Your task to perform on an android device: Search for sushi restaurants on Maps Image 0: 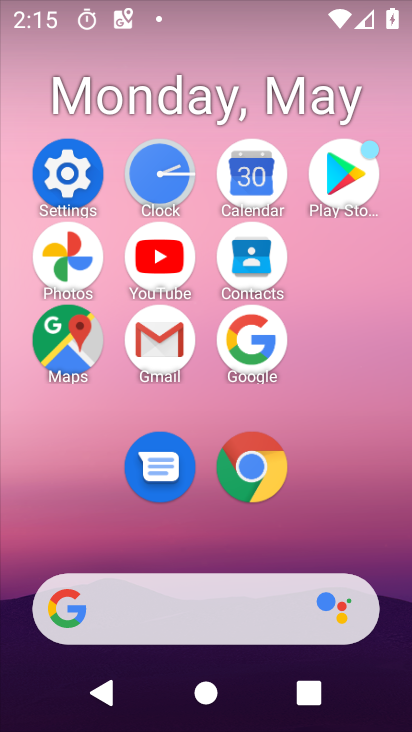
Step 0: click (86, 363)
Your task to perform on an android device: Search for sushi restaurants on Maps Image 1: 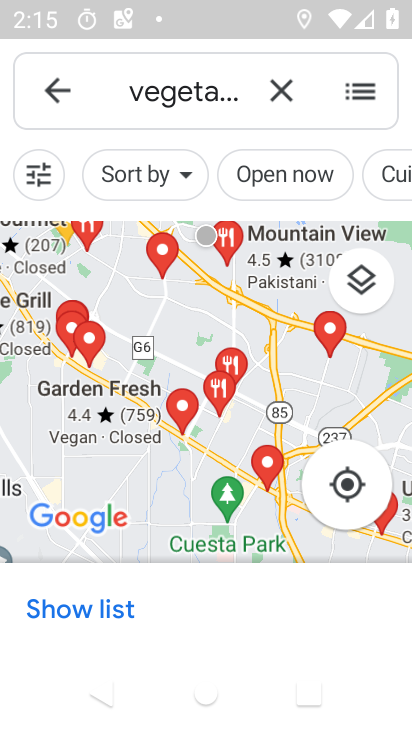
Step 1: click (263, 94)
Your task to perform on an android device: Search for sushi restaurants on Maps Image 2: 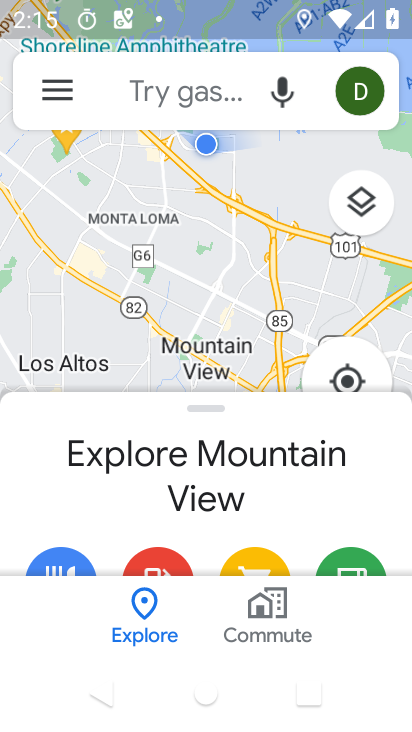
Step 2: click (183, 106)
Your task to perform on an android device: Search for sushi restaurants on Maps Image 3: 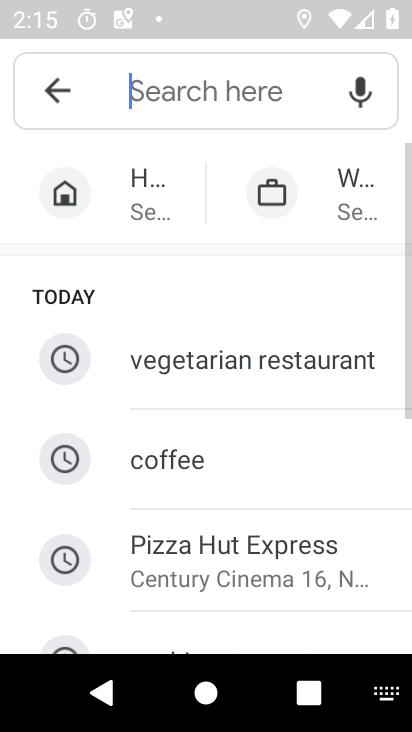
Step 3: drag from (217, 470) to (183, 40)
Your task to perform on an android device: Search for sushi restaurants on Maps Image 4: 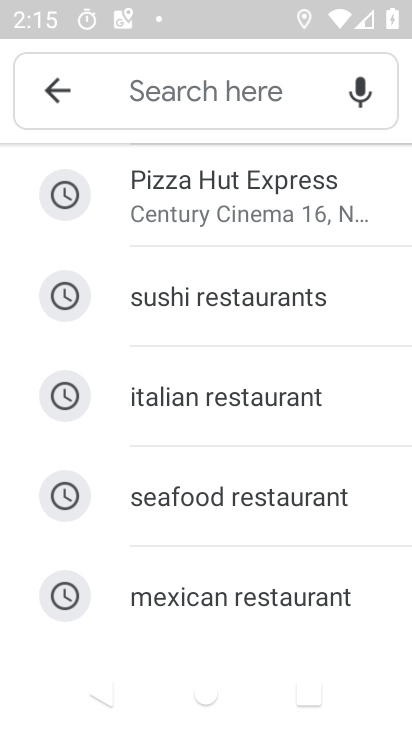
Step 4: click (241, 316)
Your task to perform on an android device: Search for sushi restaurants on Maps Image 5: 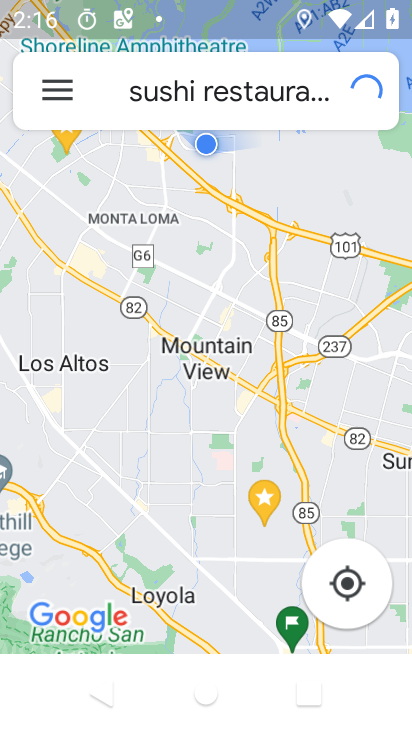
Step 5: task complete